Your task to perform on an android device: Open the Play Movies app and select the watchlist tab. Image 0: 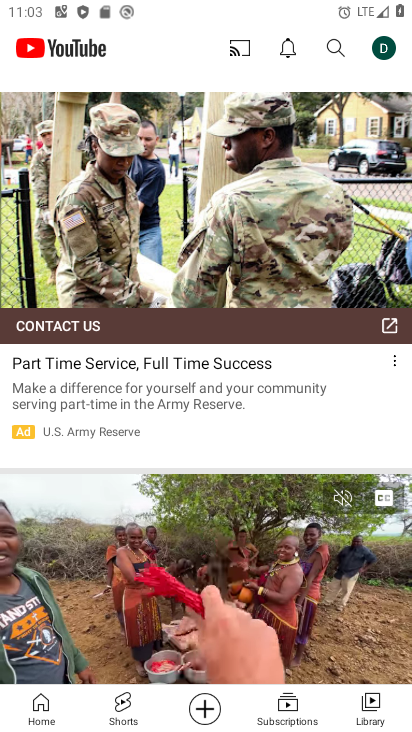
Step 0: press home button
Your task to perform on an android device: Open the Play Movies app and select the watchlist tab. Image 1: 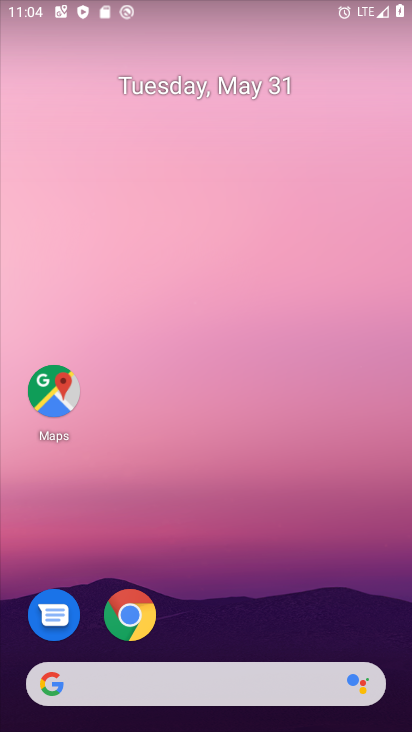
Step 1: drag from (293, 551) to (341, 9)
Your task to perform on an android device: Open the Play Movies app and select the watchlist tab. Image 2: 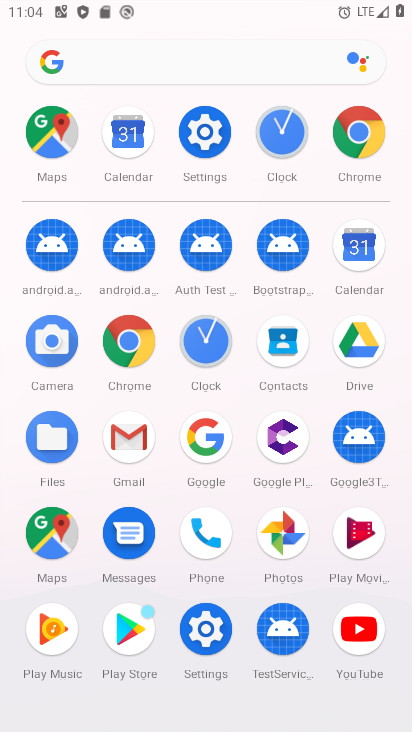
Step 2: click (359, 533)
Your task to perform on an android device: Open the Play Movies app and select the watchlist tab. Image 3: 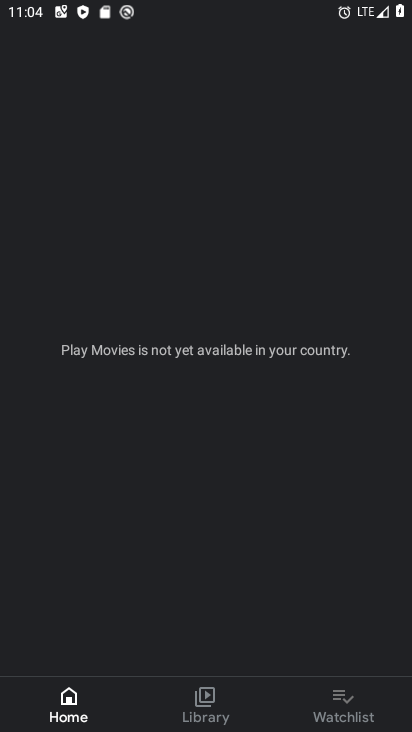
Step 3: click (352, 702)
Your task to perform on an android device: Open the Play Movies app and select the watchlist tab. Image 4: 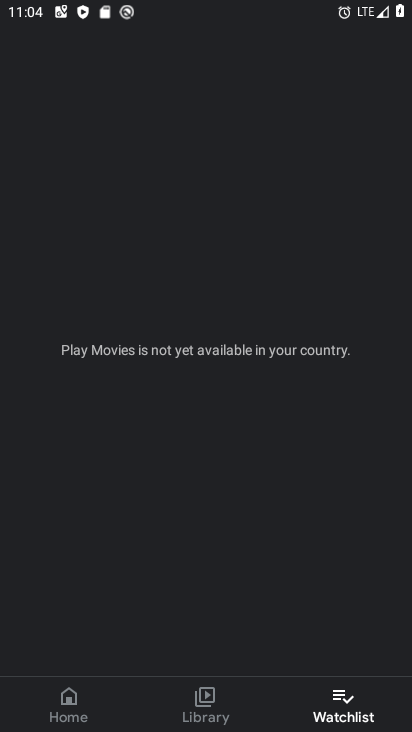
Step 4: task complete